Your task to perform on an android device: open app "Reddit" Image 0: 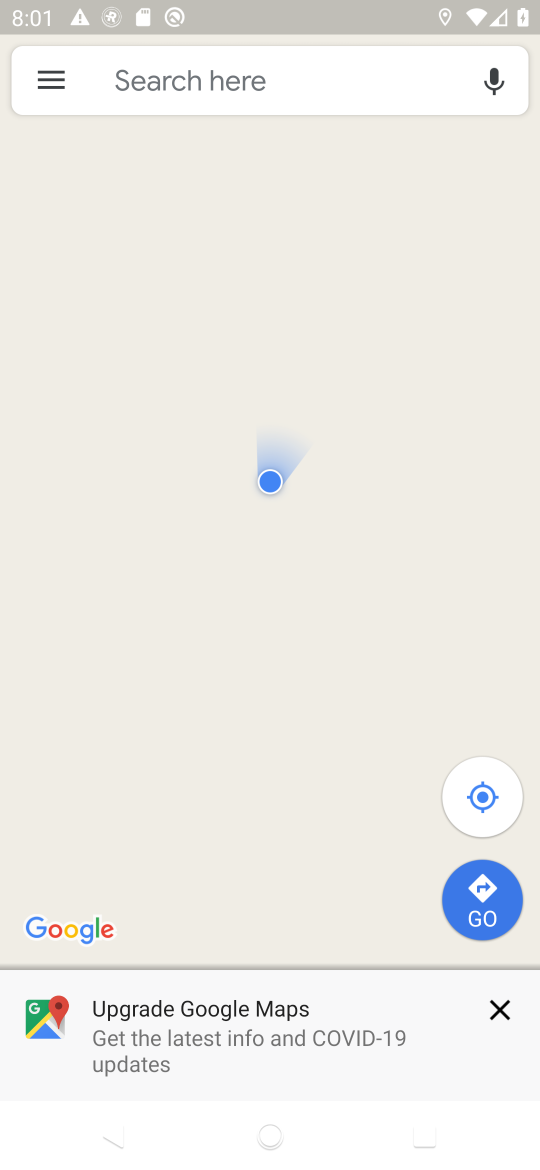
Step 0: press home button
Your task to perform on an android device: open app "Reddit" Image 1: 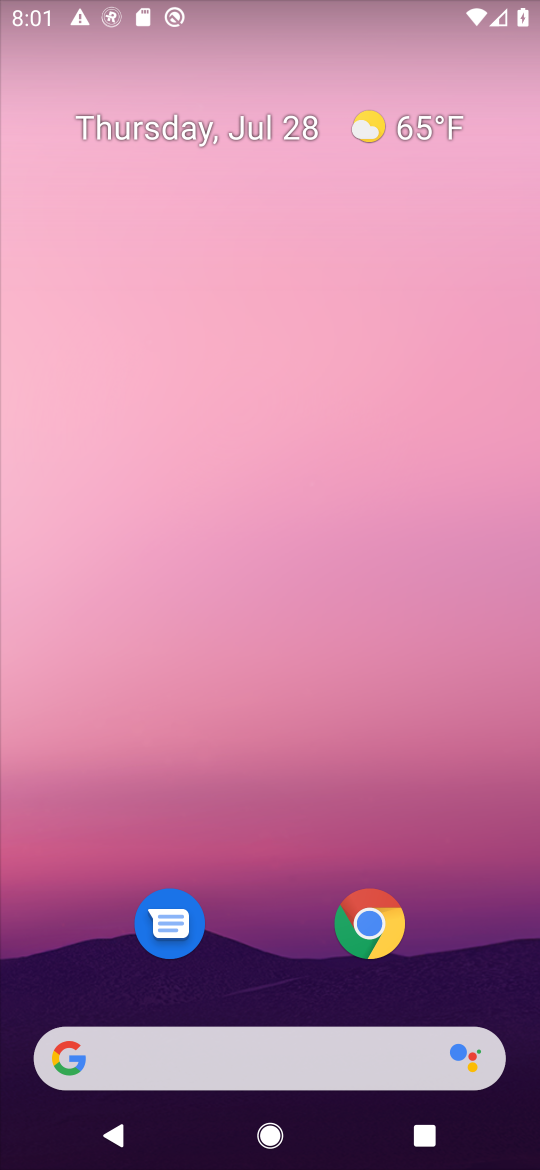
Step 1: drag from (451, 928) to (450, 13)
Your task to perform on an android device: open app "Reddit" Image 2: 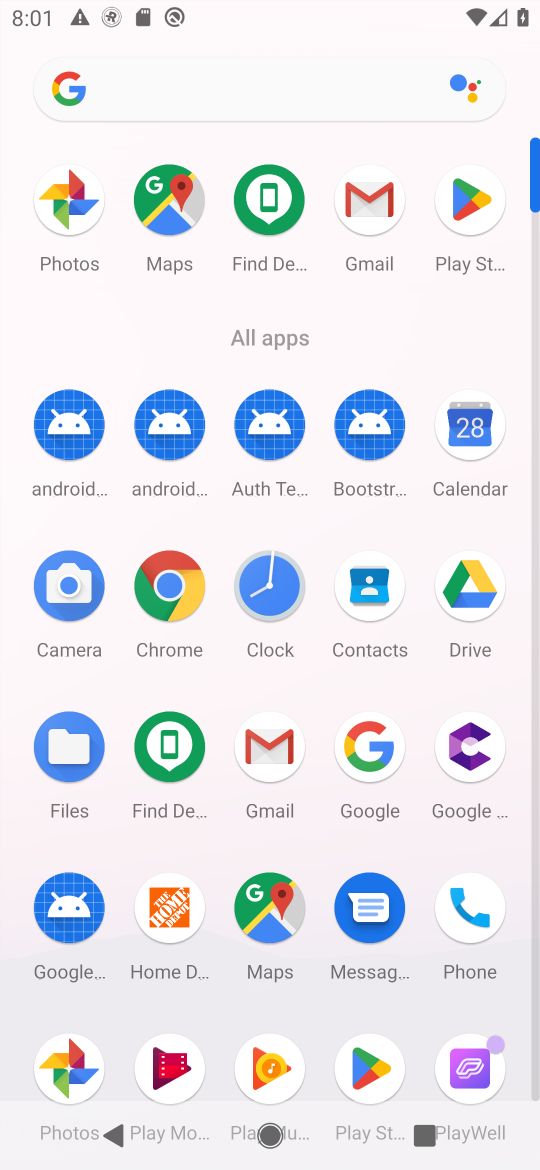
Step 2: click (460, 226)
Your task to perform on an android device: open app "Reddit" Image 3: 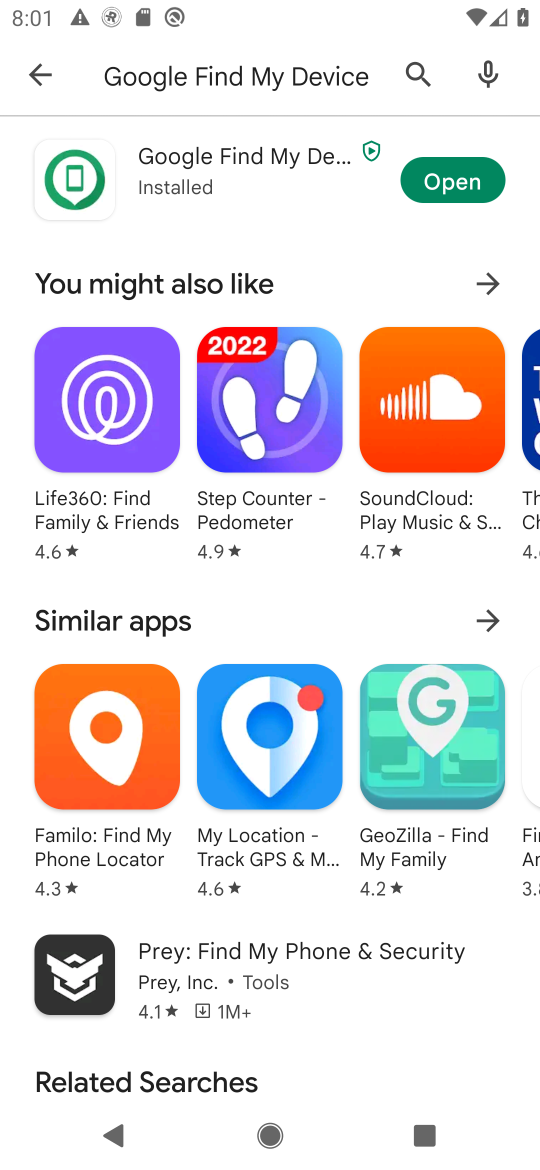
Step 3: click (298, 85)
Your task to perform on an android device: open app "Reddit" Image 4: 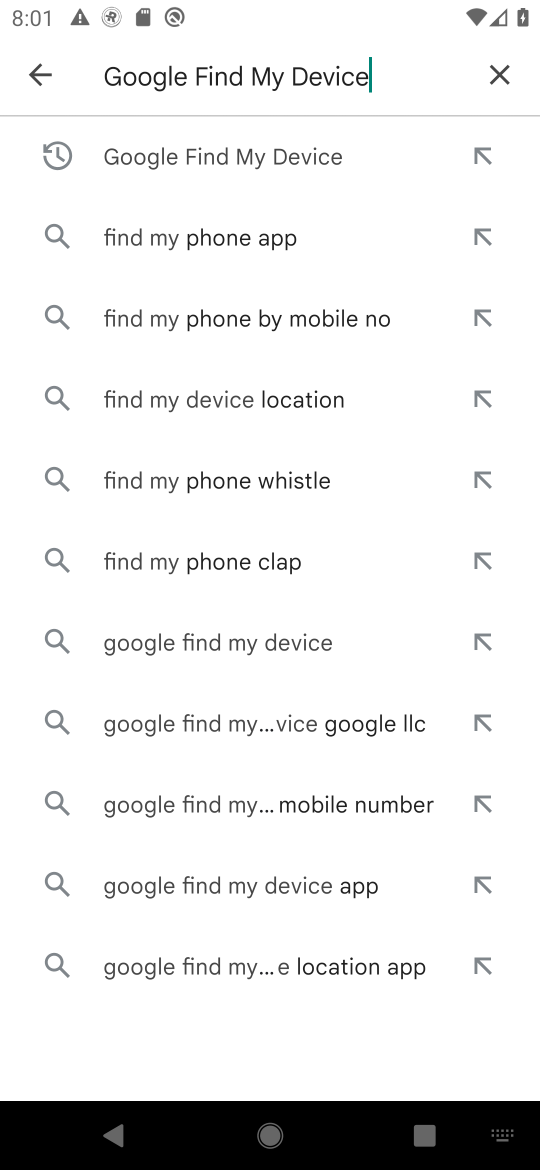
Step 4: click (501, 78)
Your task to perform on an android device: open app "Reddit" Image 5: 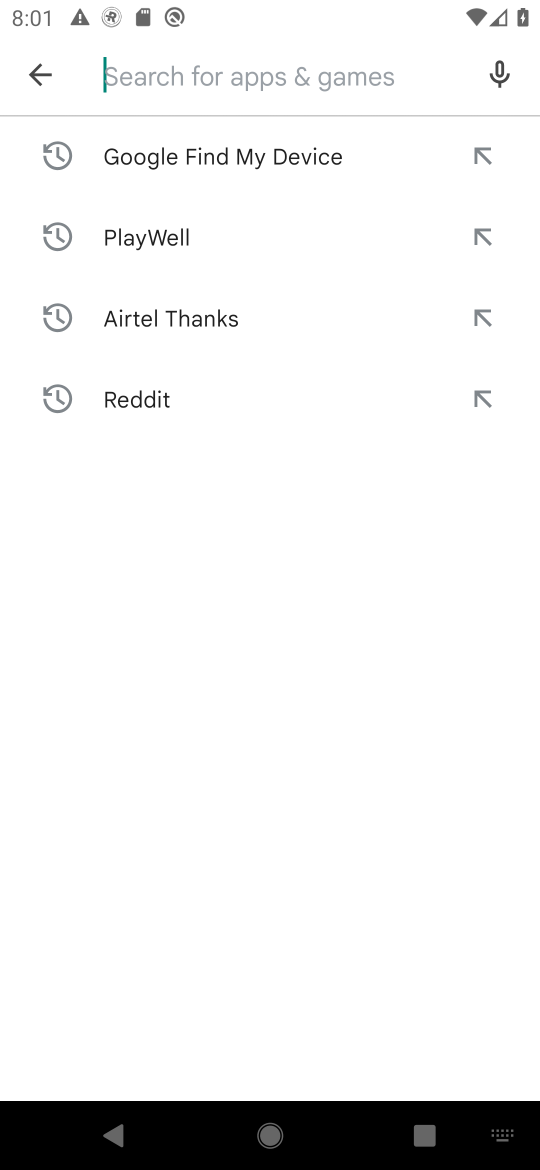
Step 5: type "Reddit"
Your task to perform on an android device: open app "Reddit" Image 6: 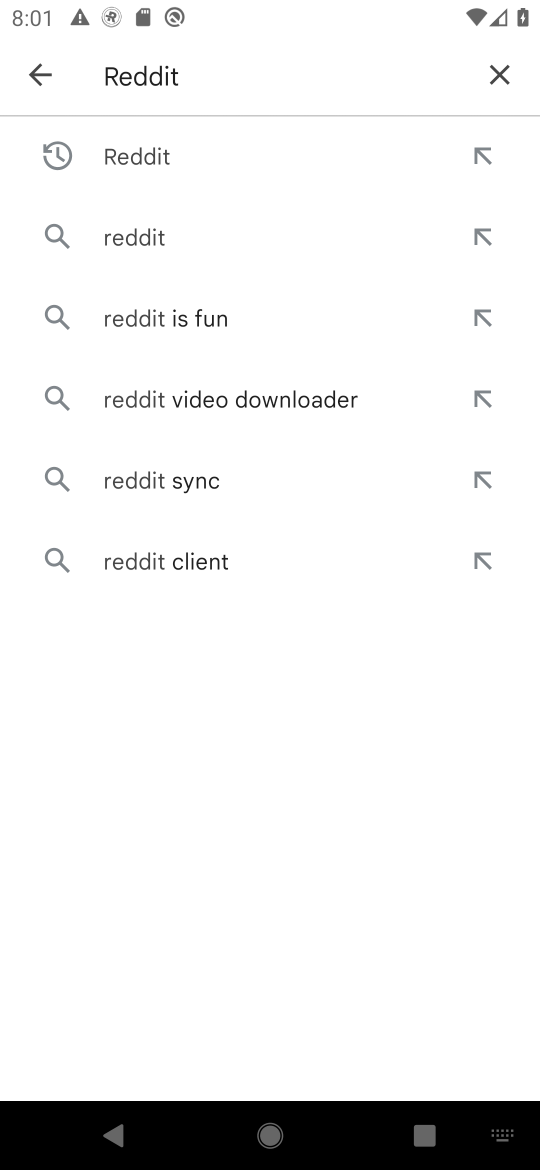
Step 6: press enter
Your task to perform on an android device: open app "Reddit" Image 7: 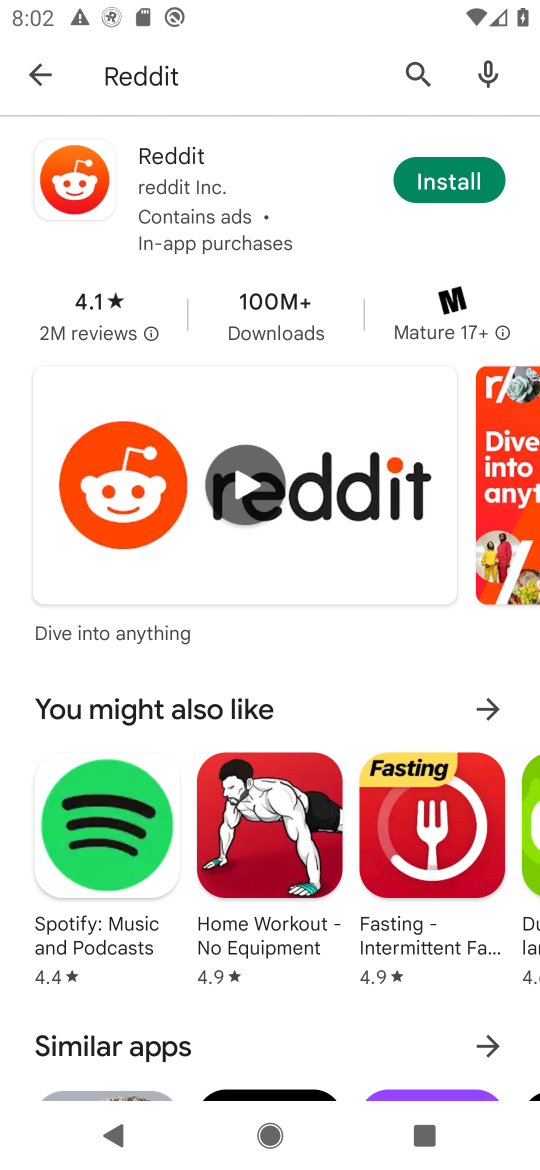
Step 7: task complete